Your task to perform on an android device: turn on bluetooth scan Image 0: 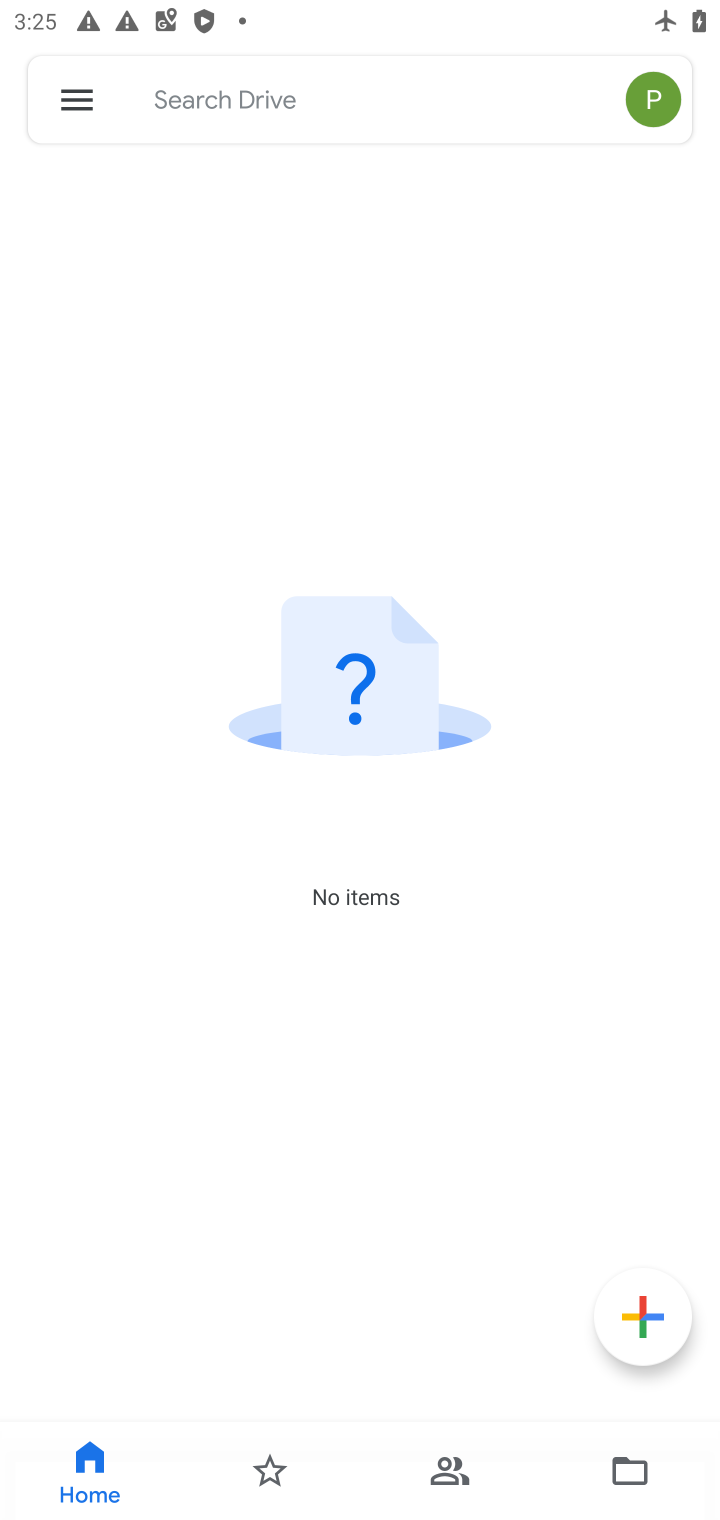
Step 0: press back button
Your task to perform on an android device: turn on bluetooth scan Image 1: 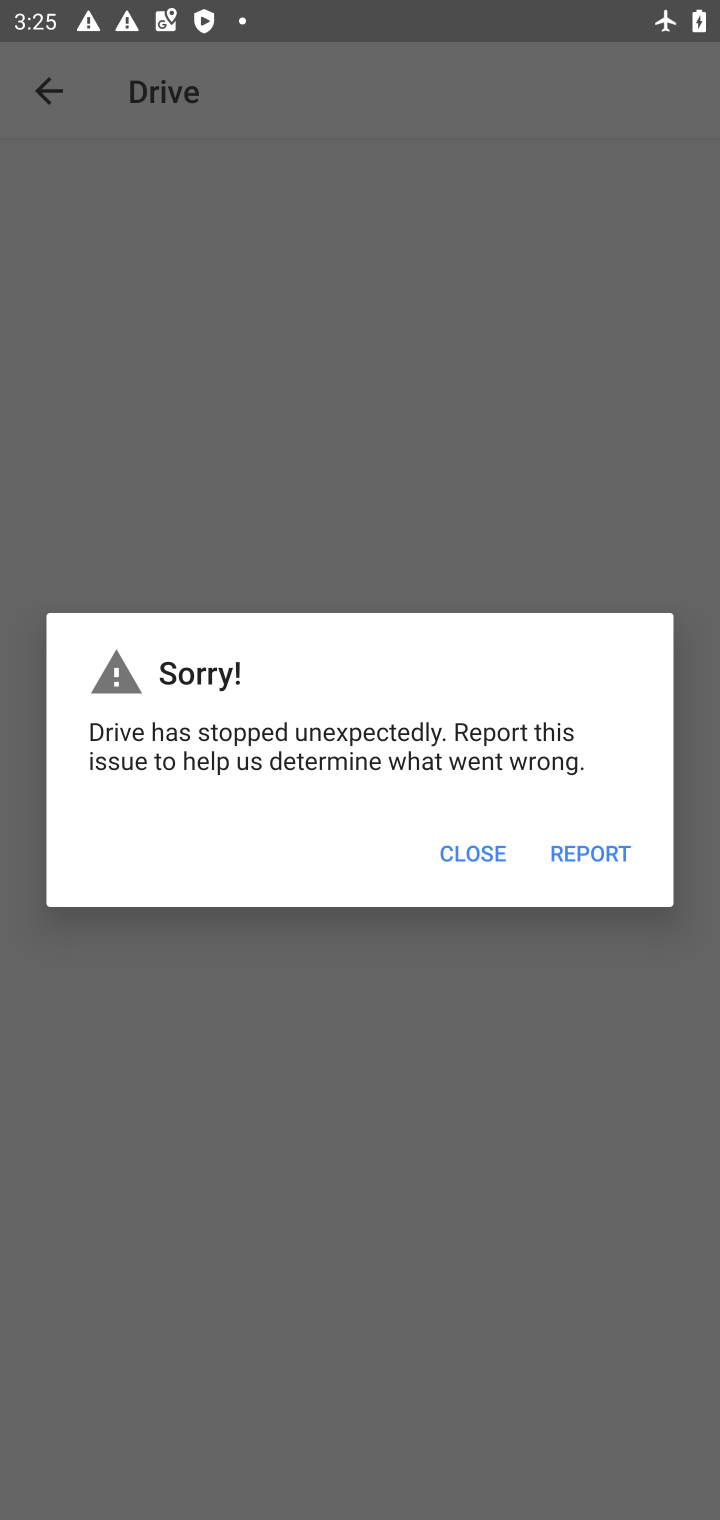
Step 1: press back button
Your task to perform on an android device: turn on bluetooth scan Image 2: 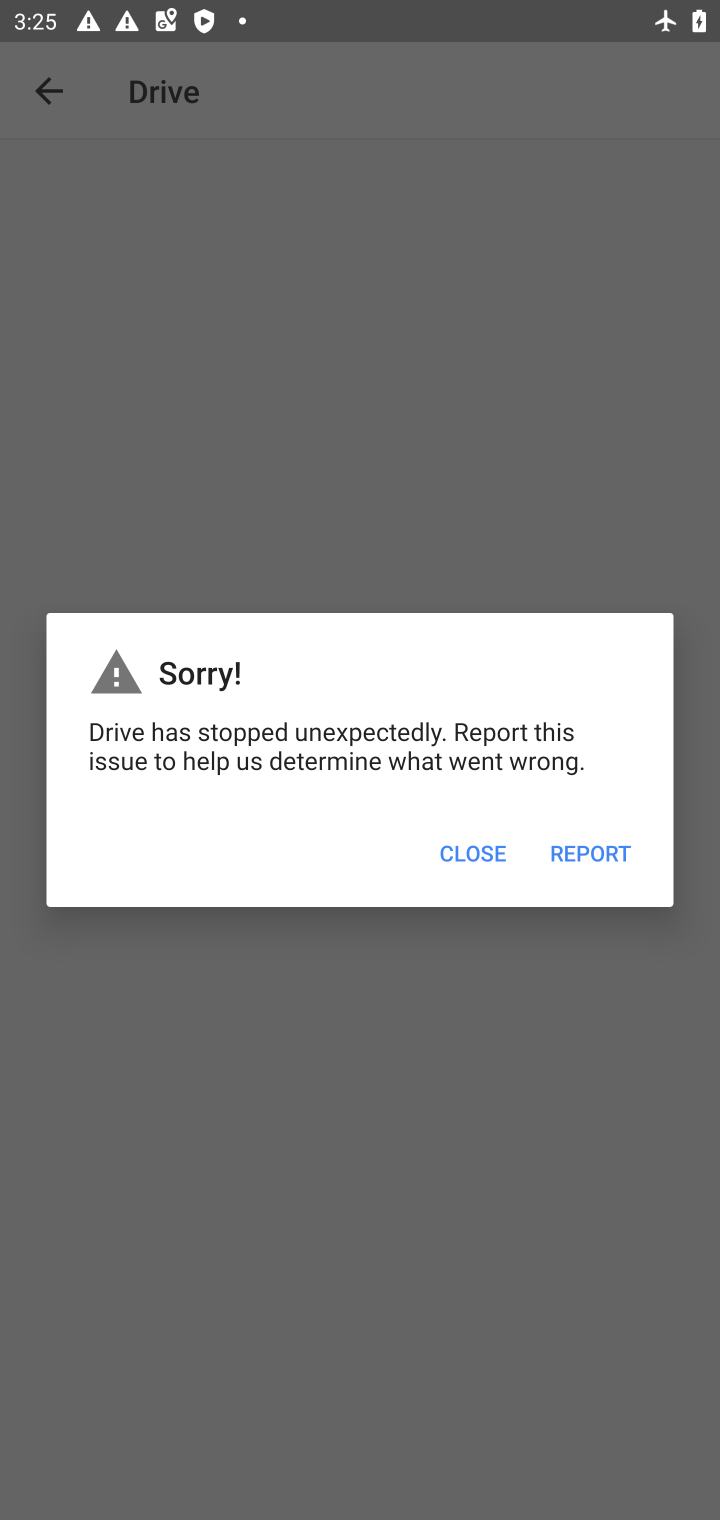
Step 2: press back button
Your task to perform on an android device: turn on bluetooth scan Image 3: 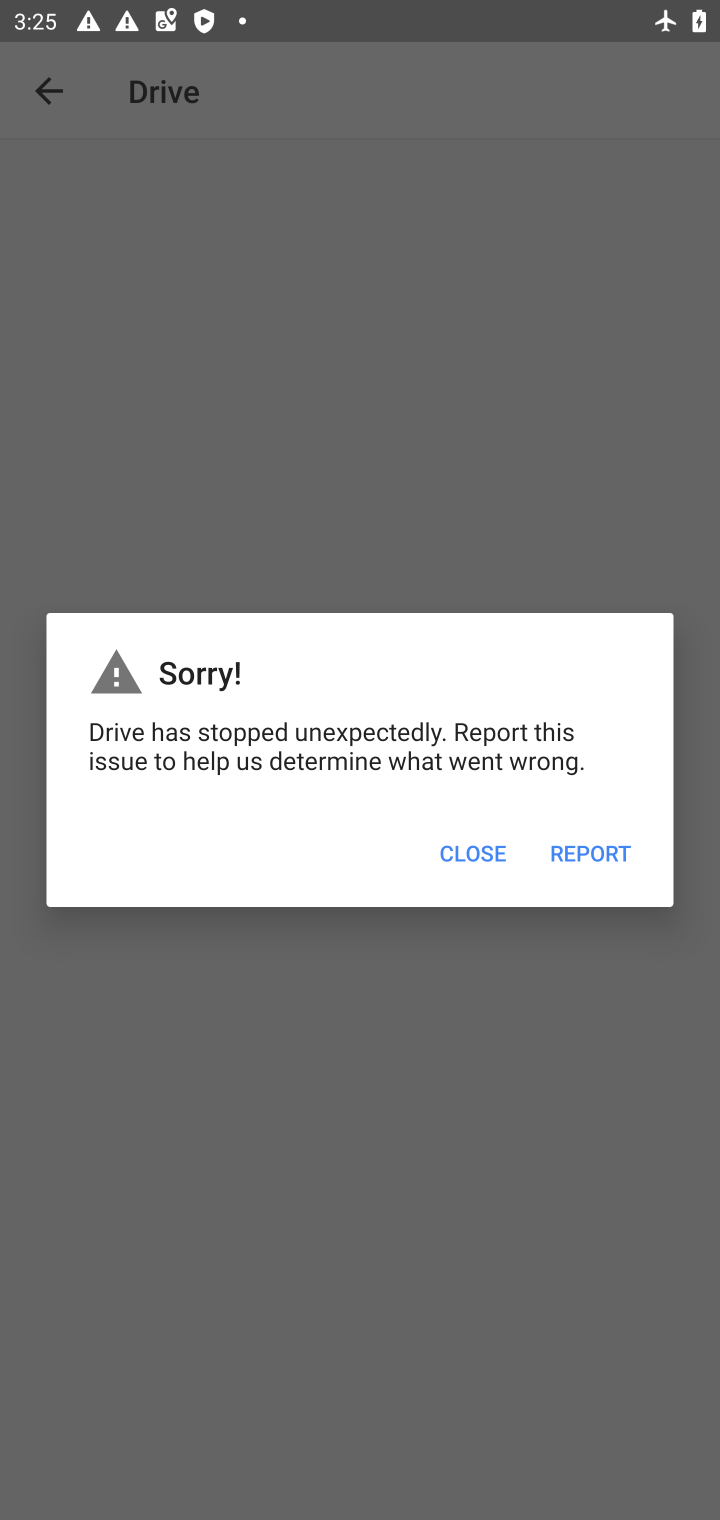
Step 3: press home button
Your task to perform on an android device: turn on bluetooth scan Image 4: 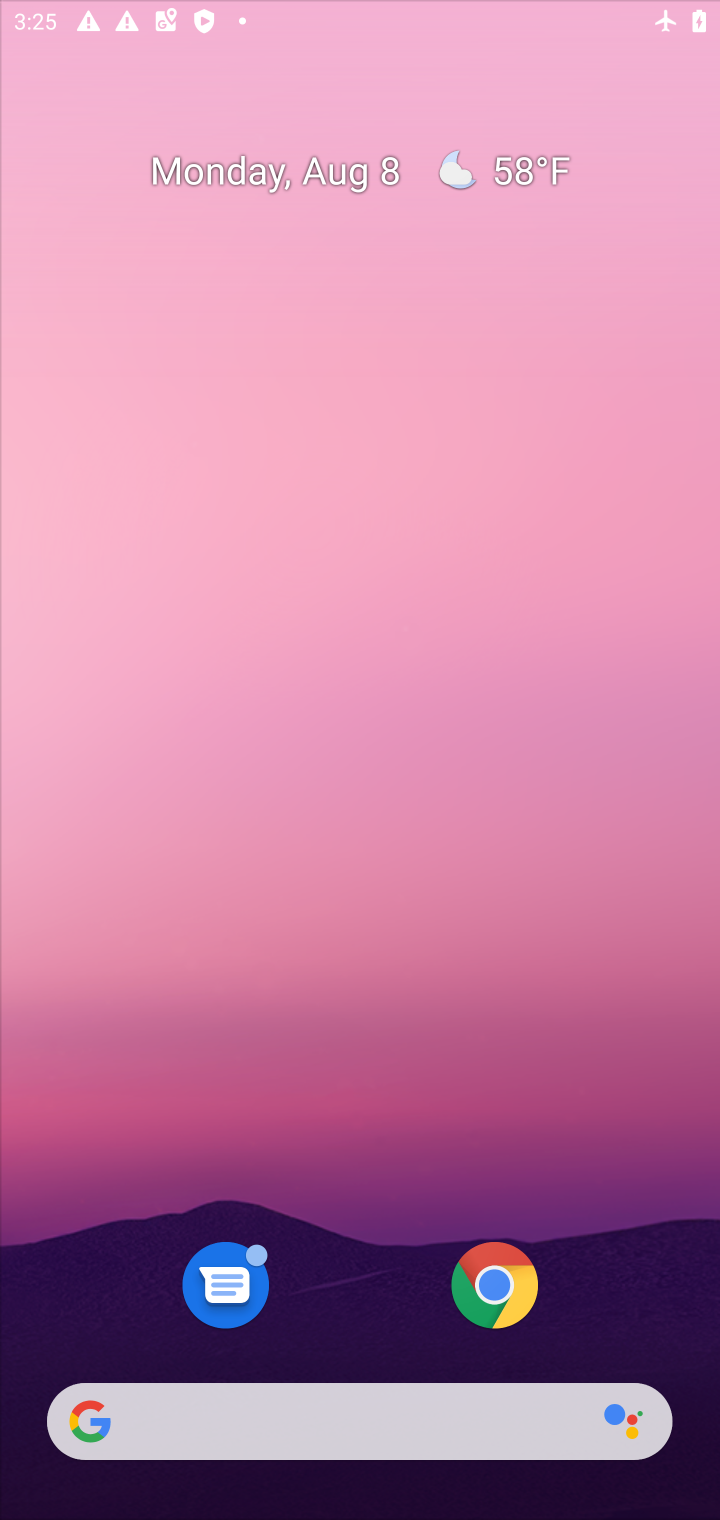
Step 4: drag from (356, 1397) to (581, 27)
Your task to perform on an android device: turn on bluetooth scan Image 5: 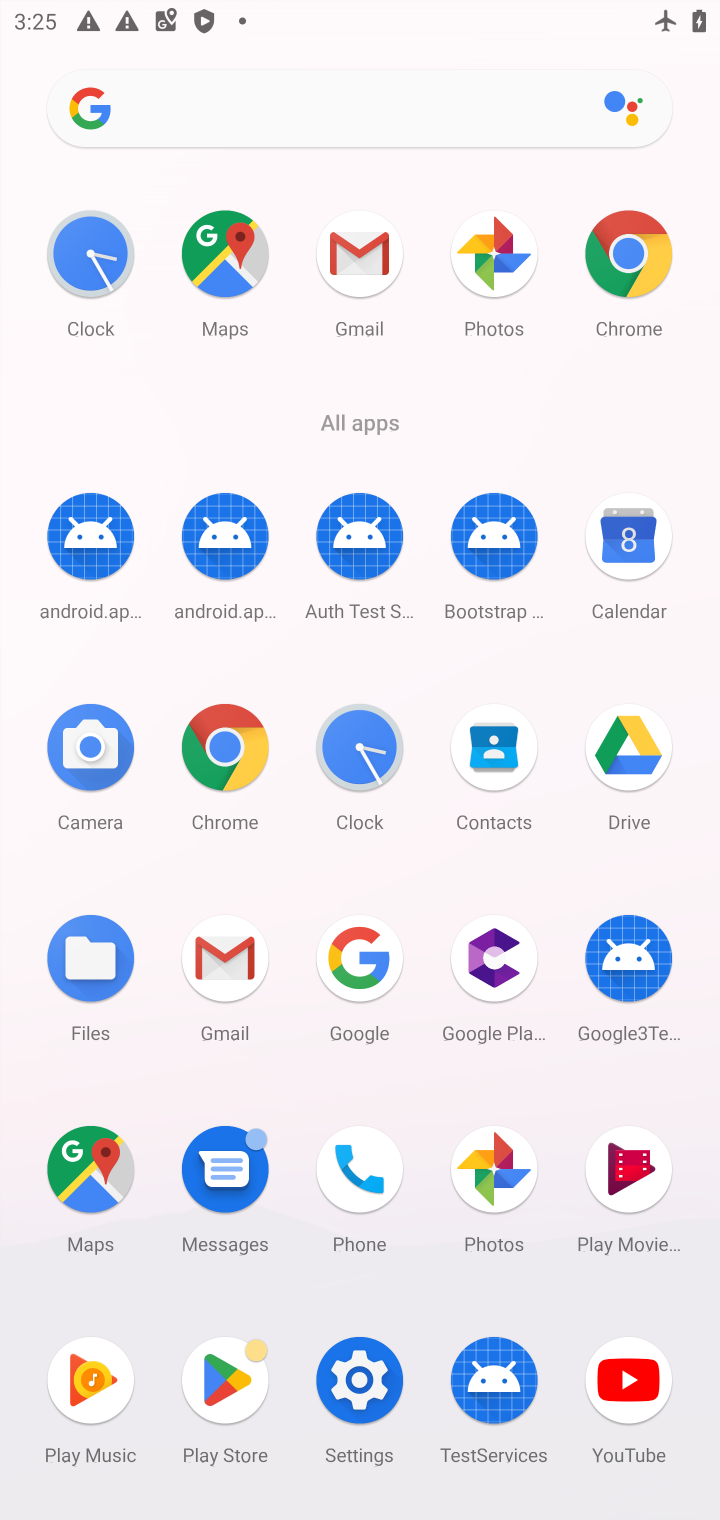
Step 5: click (367, 1387)
Your task to perform on an android device: turn on bluetooth scan Image 6: 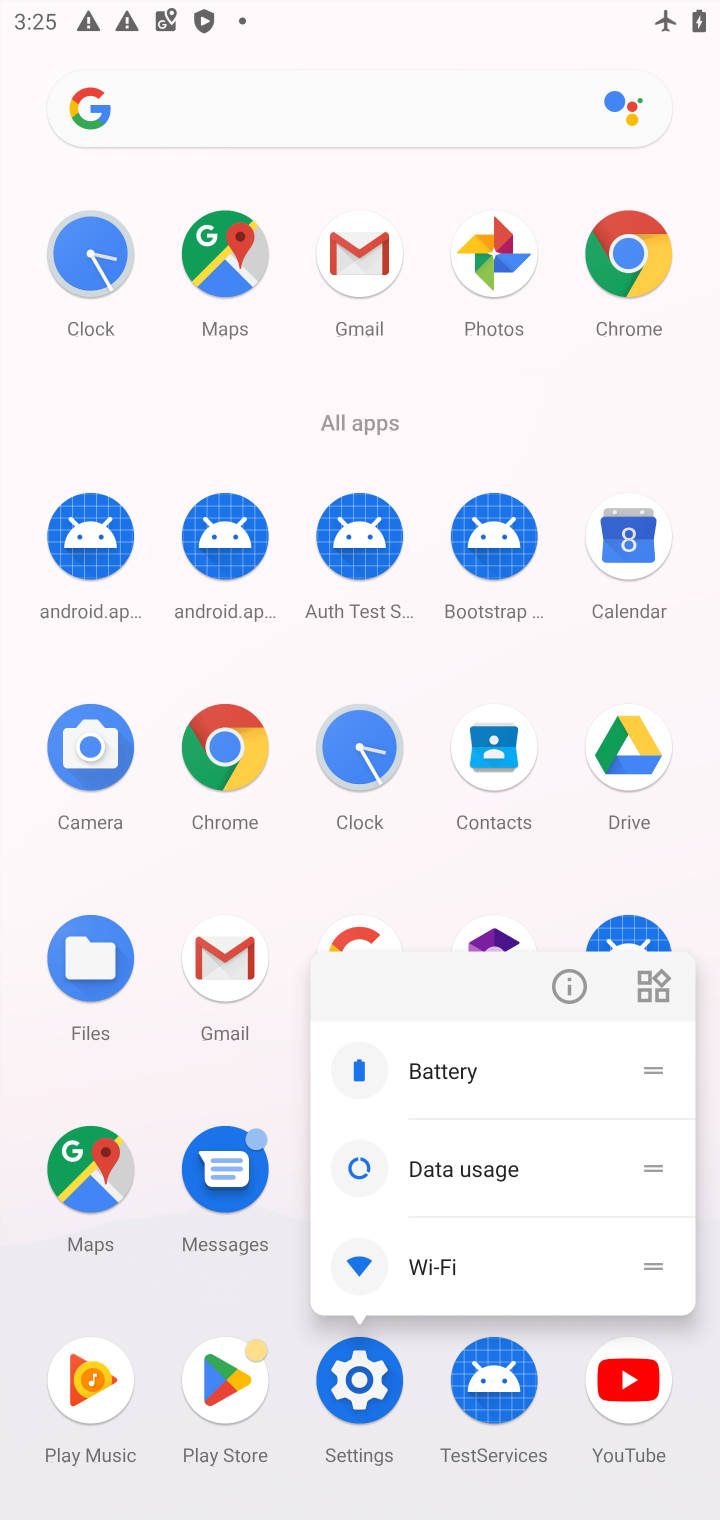
Step 6: click (335, 1385)
Your task to perform on an android device: turn on bluetooth scan Image 7: 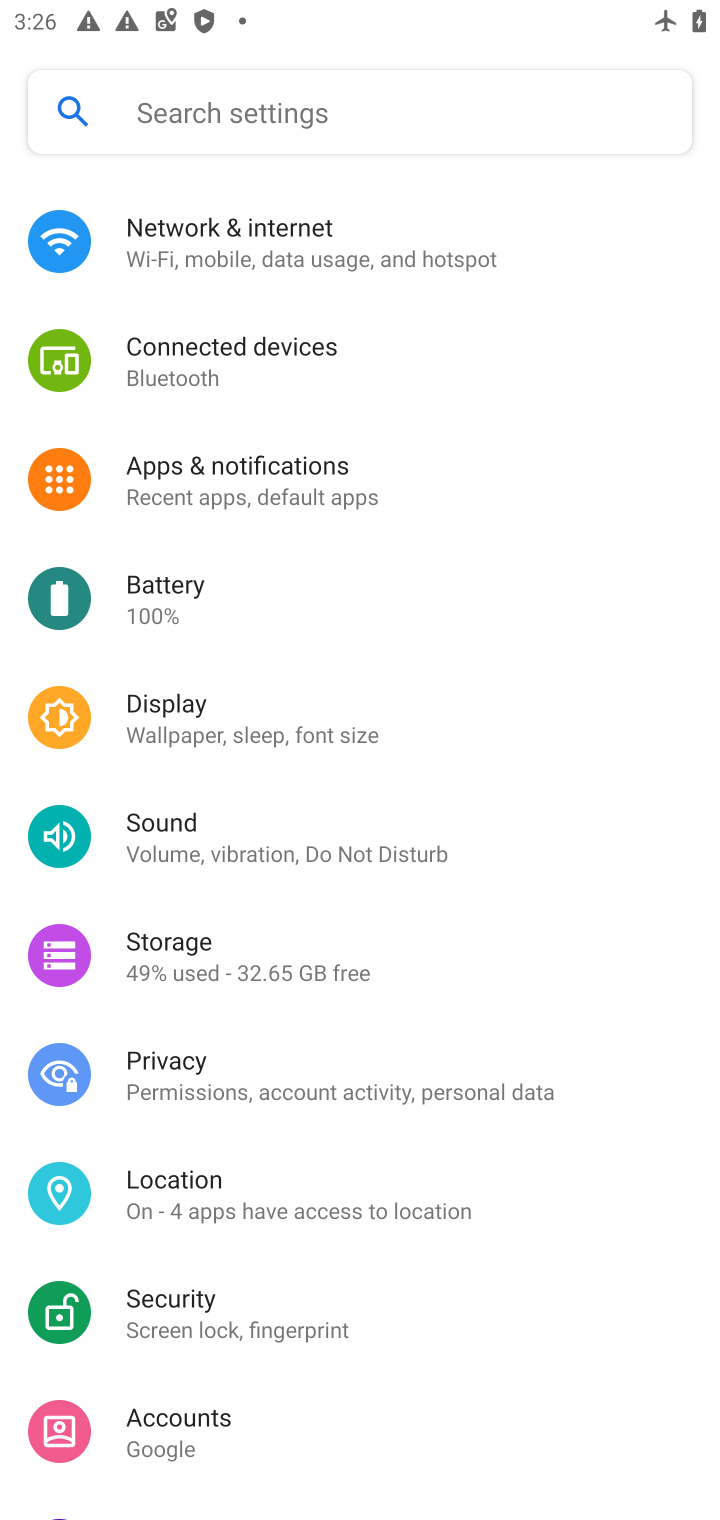
Step 7: click (216, 365)
Your task to perform on an android device: turn on bluetooth scan Image 8: 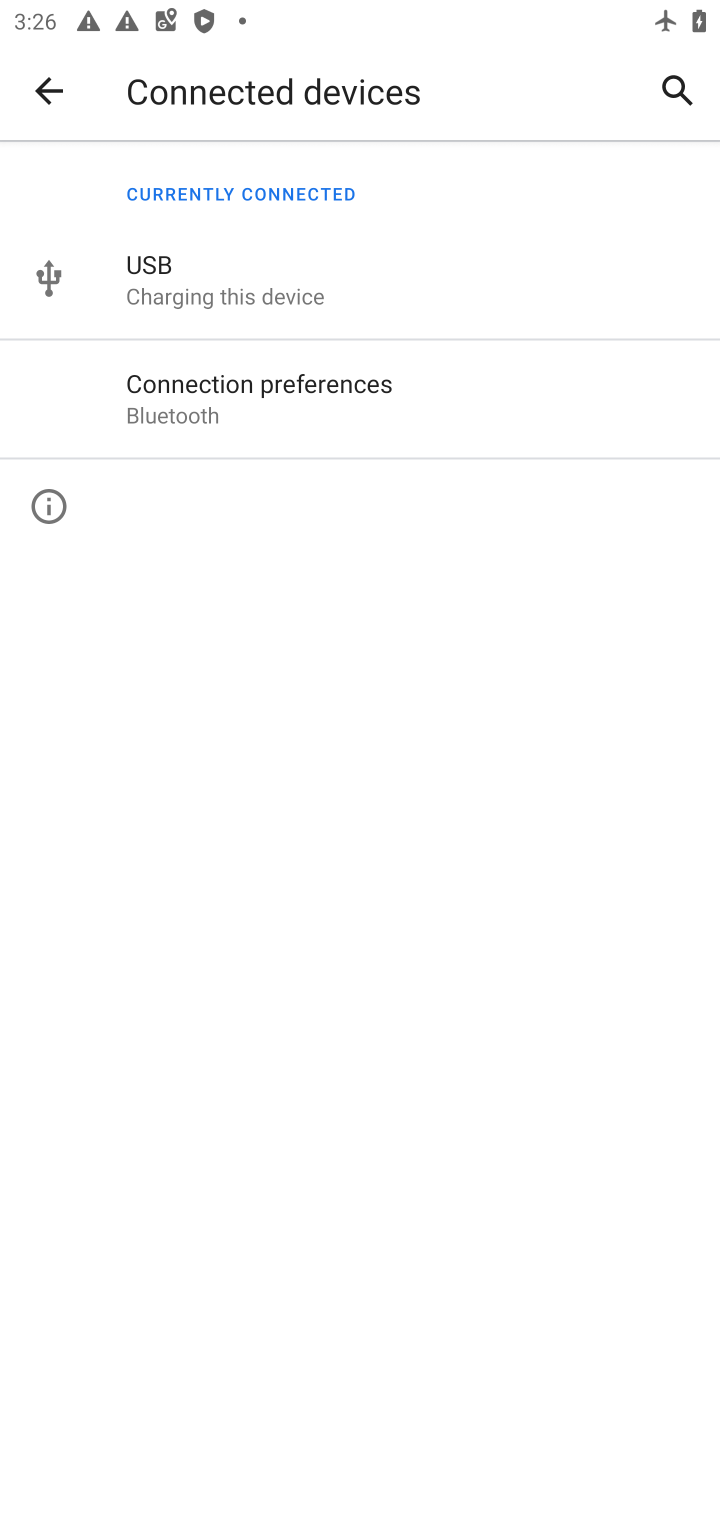
Step 8: click (221, 421)
Your task to perform on an android device: turn on bluetooth scan Image 9: 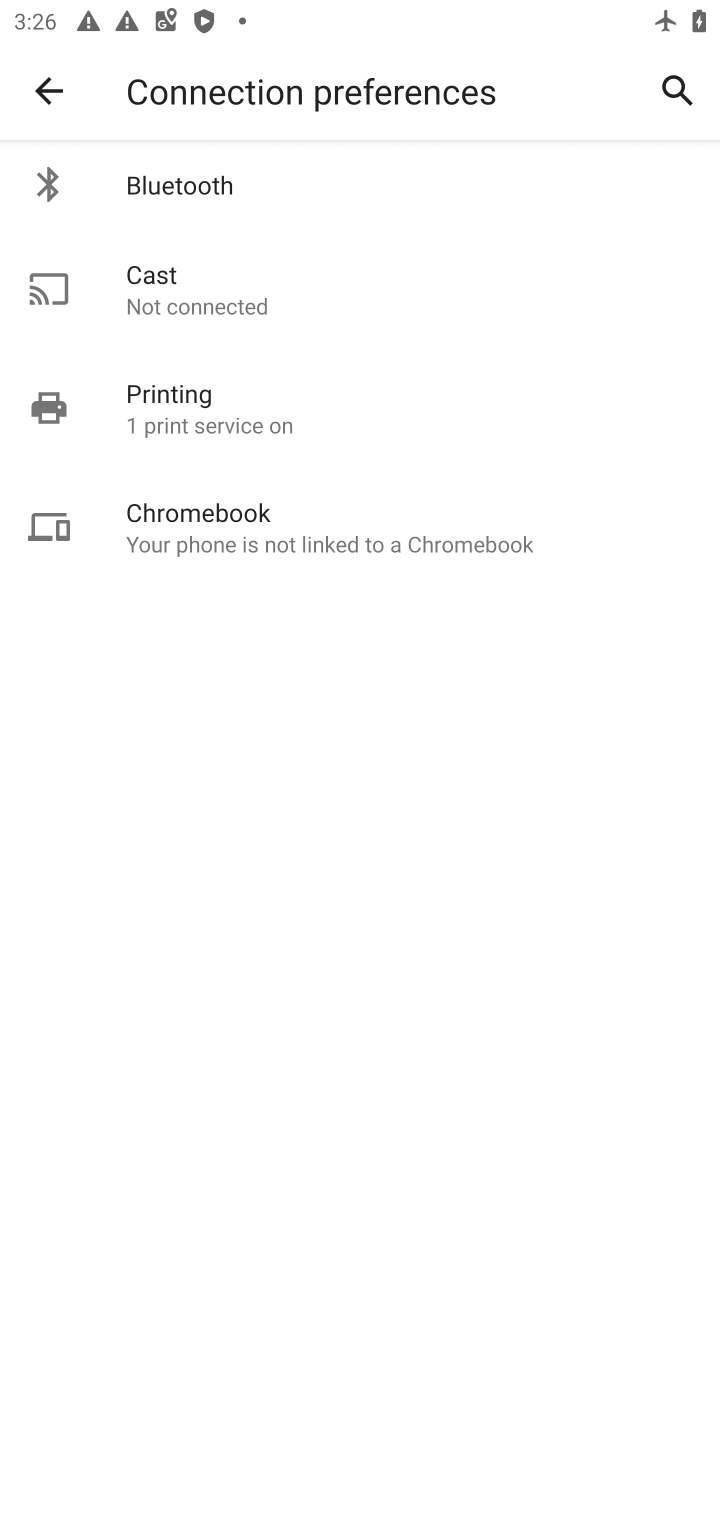
Step 9: click (205, 186)
Your task to perform on an android device: turn on bluetooth scan Image 10: 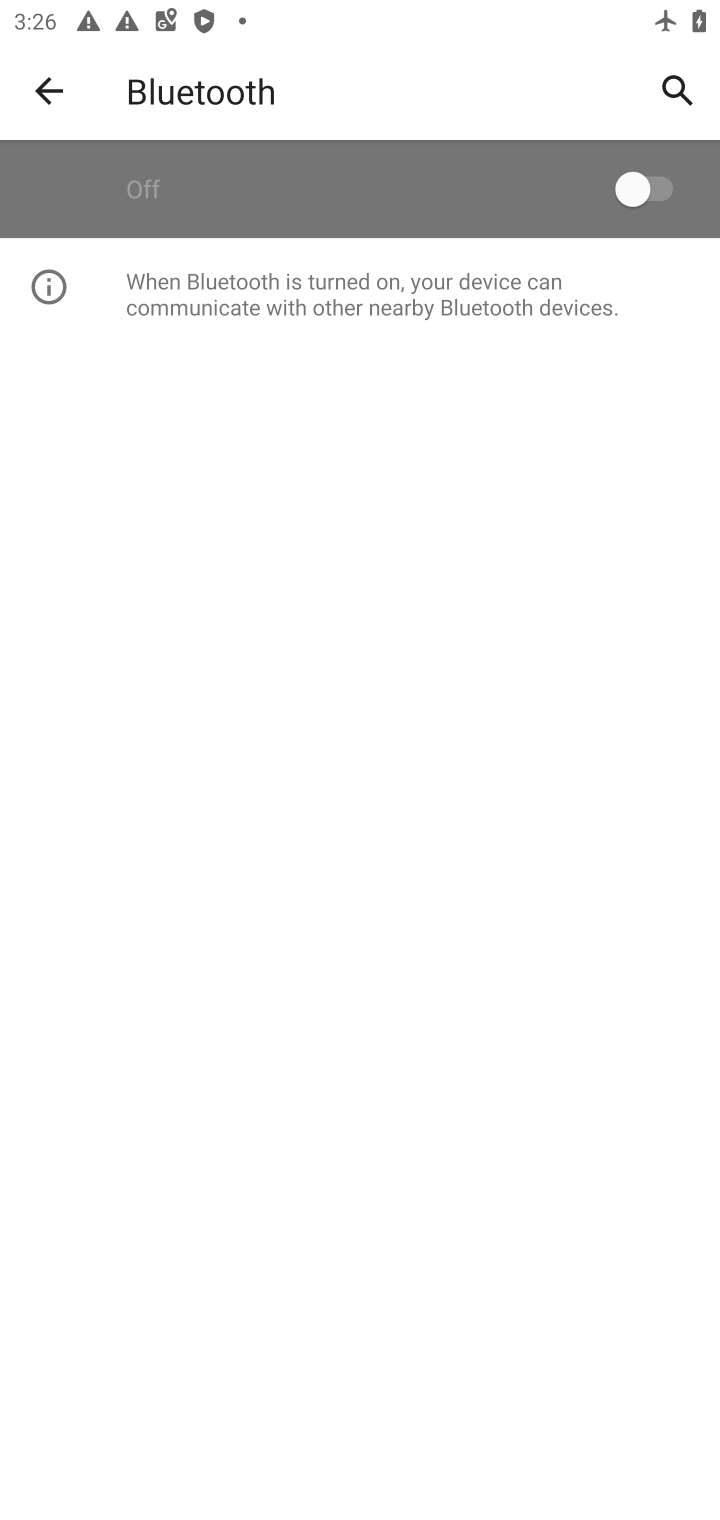
Step 10: click (643, 193)
Your task to perform on an android device: turn on bluetooth scan Image 11: 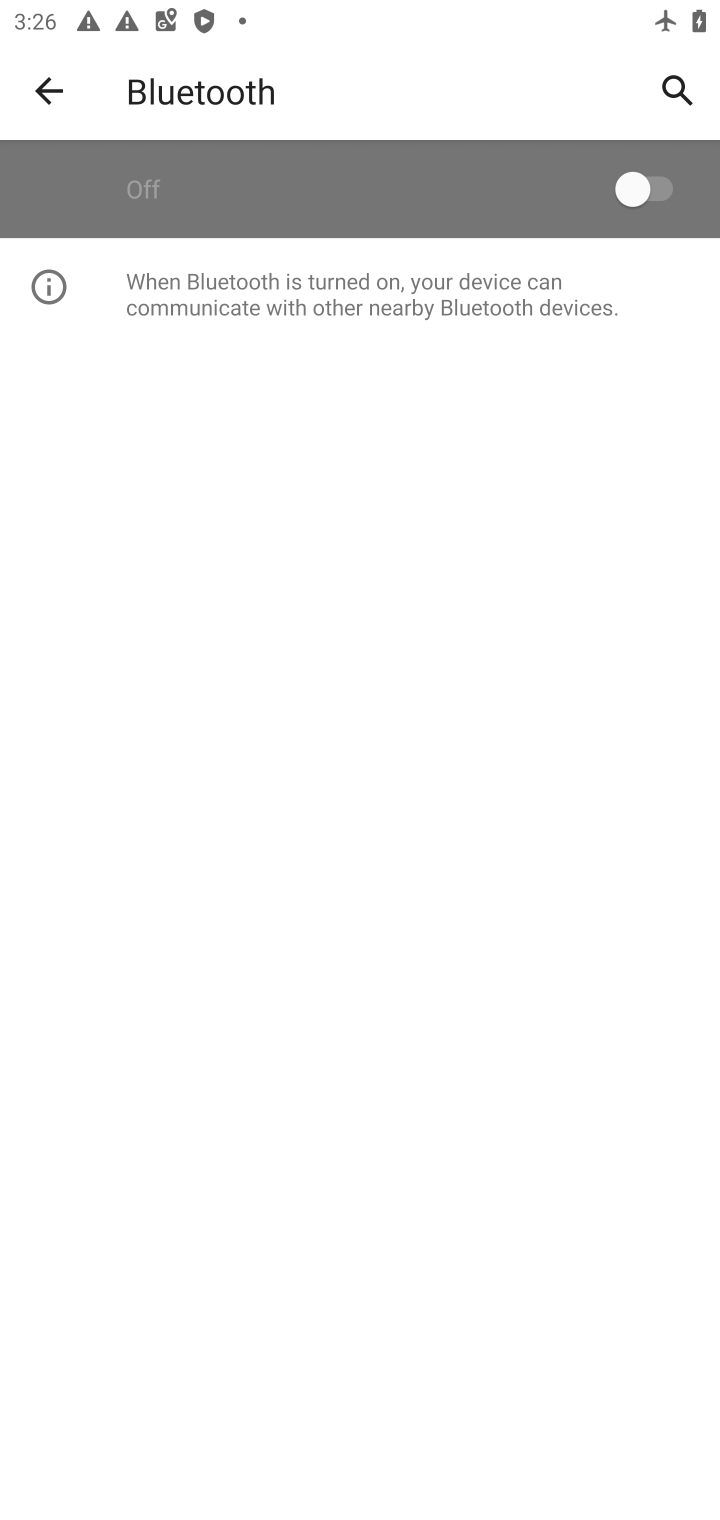
Step 11: task complete